Your task to perform on an android device: turn off picture-in-picture Image 0: 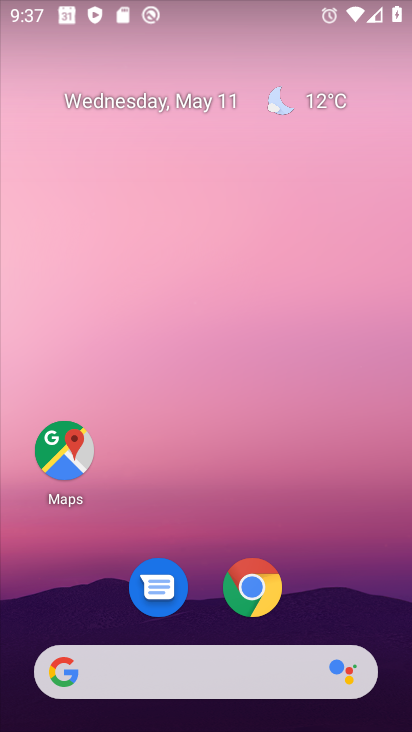
Step 0: drag from (256, 583) to (235, 468)
Your task to perform on an android device: turn off picture-in-picture Image 1: 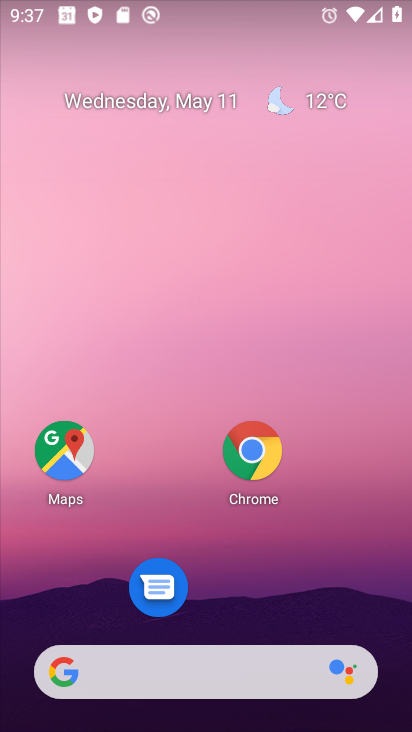
Step 1: click (185, 389)
Your task to perform on an android device: turn off picture-in-picture Image 2: 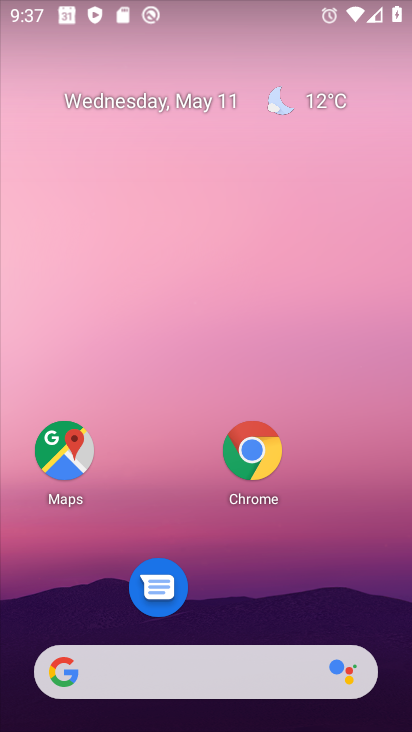
Step 2: click (255, 445)
Your task to perform on an android device: turn off picture-in-picture Image 3: 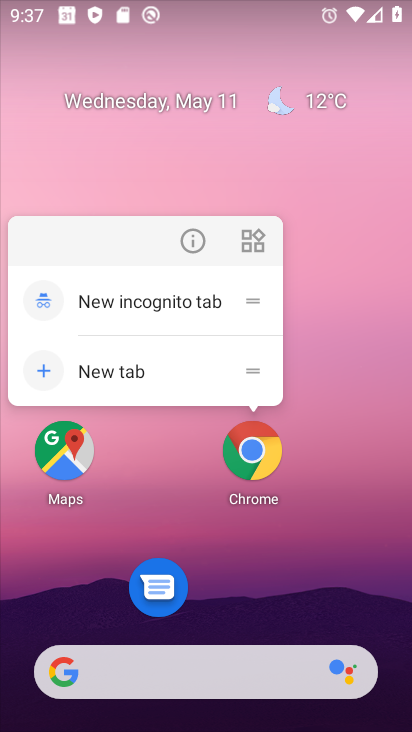
Step 3: click (202, 248)
Your task to perform on an android device: turn off picture-in-picture Image 4: 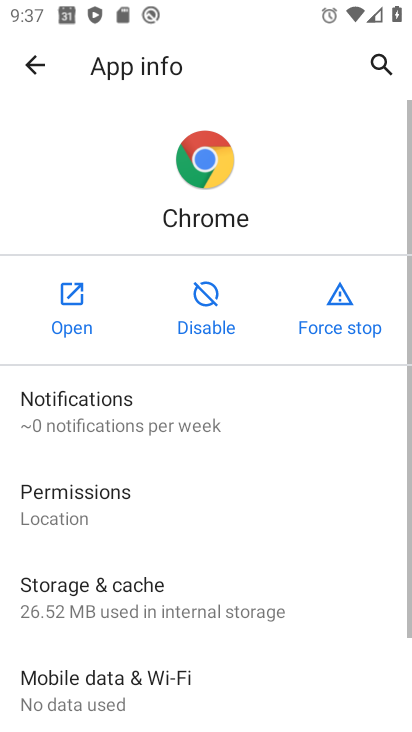
Step 4: drag from (232, 632) to (243, 42)
Your task to perform on an android device: turn off picture-in-picture Image 5: 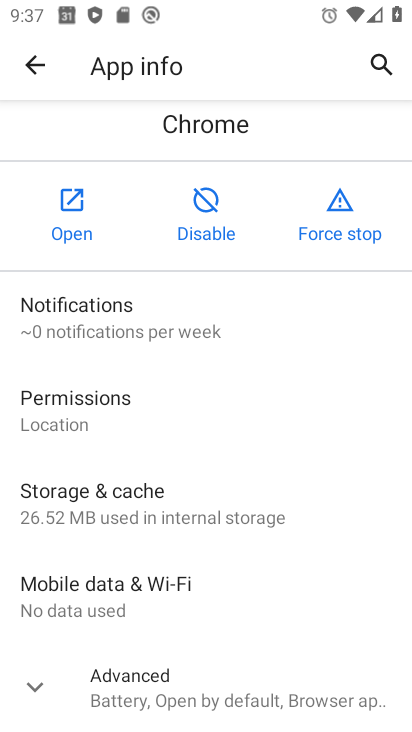
Step 5: click (32, 697)
Your task to perform on an android device: turn off picture-in-picture Image 6: 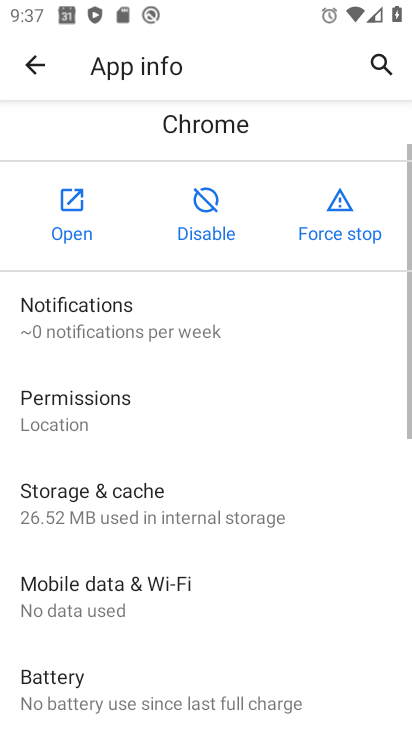
Step 6: drag from (201, 570) to (197, 145)
Your task to perform on an android device: turn off picture-in-picture Image 7: 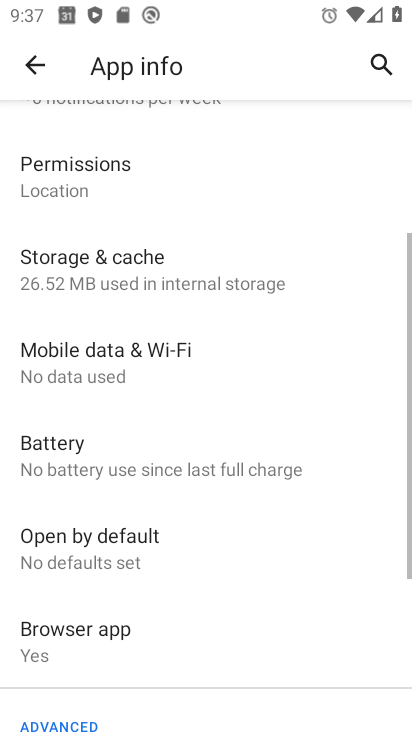
Step 7: drag from (173, 616) to (189, 145)
Your task to perform on an android device: turn off picture-in-picture Image 8: 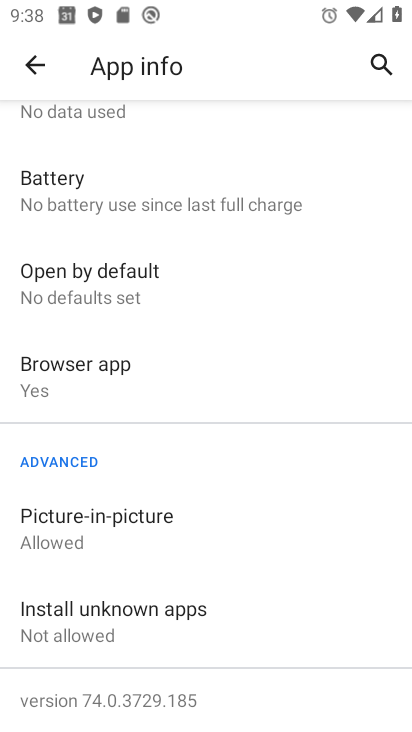
Step 8: click (73, 511)
Your task to perform on an android device: turn off picture-in-picture Image 9: 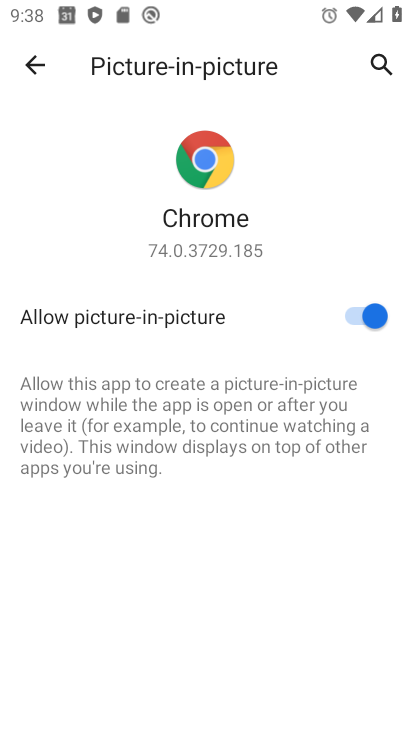
Step 9: click (383, 319)
Your task to perform on an android device: turn off picture-in-picture Image 10: 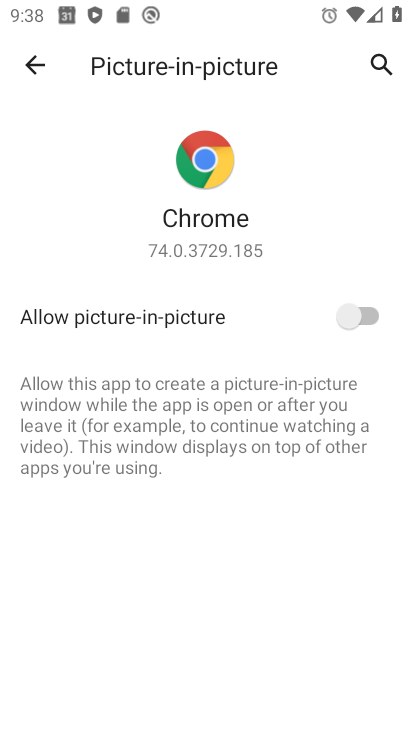
Step 10: task complete